Your task to perform on an android device: stop showing notifications on the lock screen Image 0: 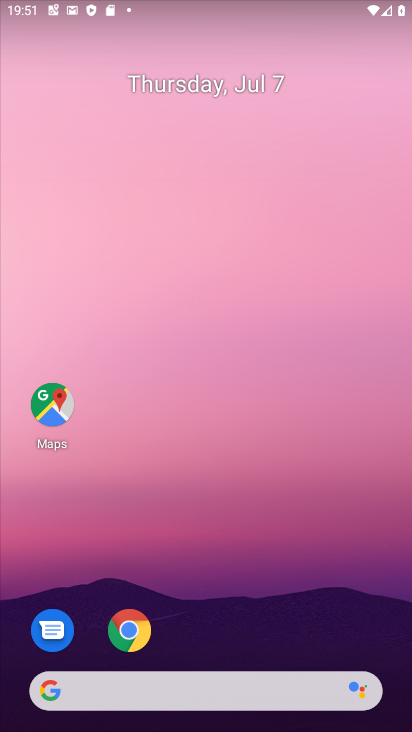
Step 0: drag from (340, 577) to (283, 141)
Your task to perform on an android device: stop showing notifications on the lock screen Image 1: 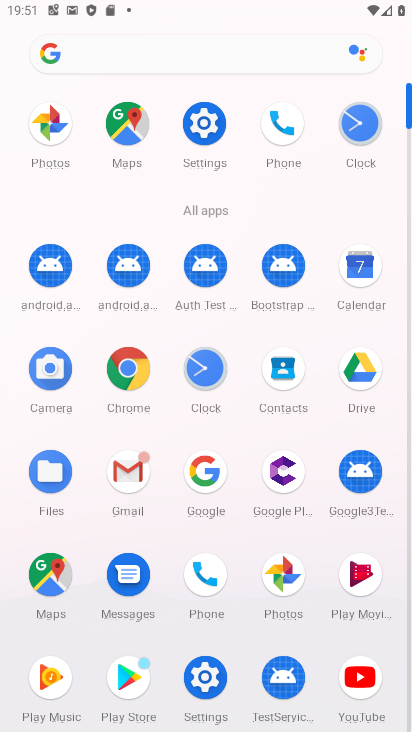
Step 1: click (218, 666)
Your task to perform on an android device: stop showing notifications on the lock screen Image 2: 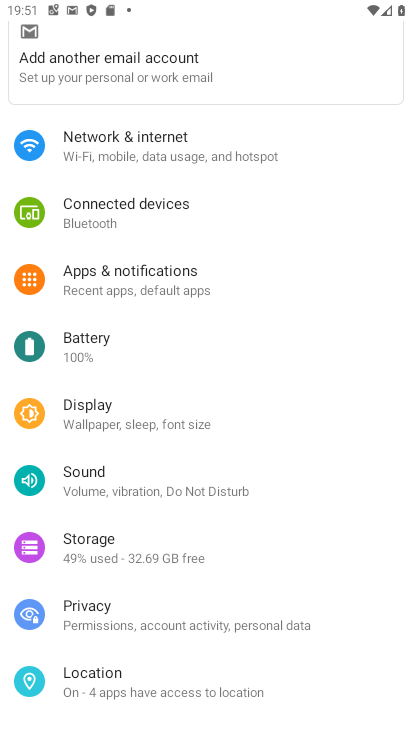
Step 2: click (143, 271)
Your task to perform on an android device: stop showing notifications on the lock screen Image 3: 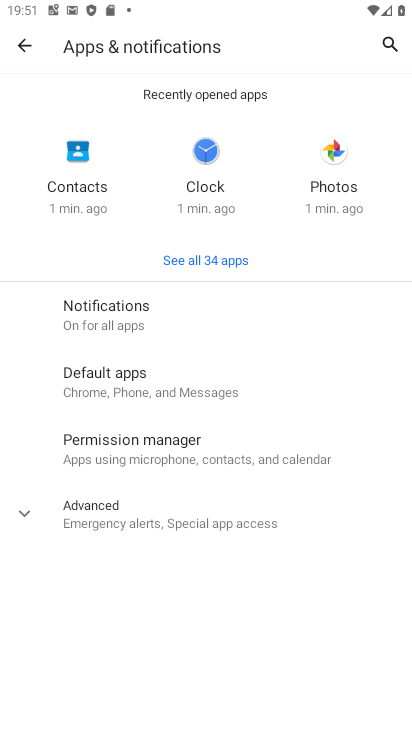
Step 3: click (129, 307)
Your task to perform on an android device: stop showing notifications on the lock screen Image 4: 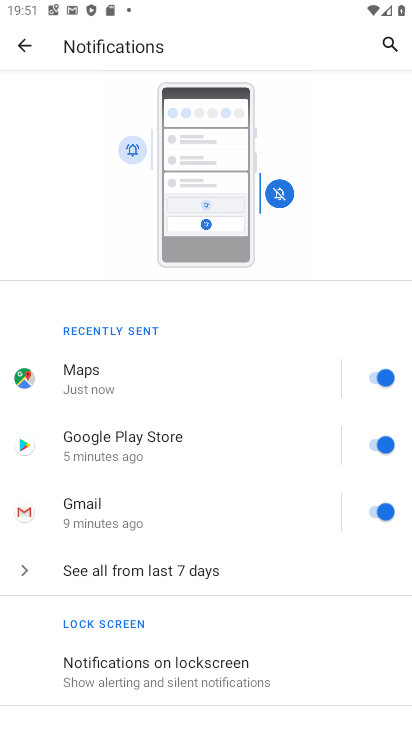
Step 4: click (147, 683)
Your task to perform on an android device: stop showing notifications on the lock screen Image 5: 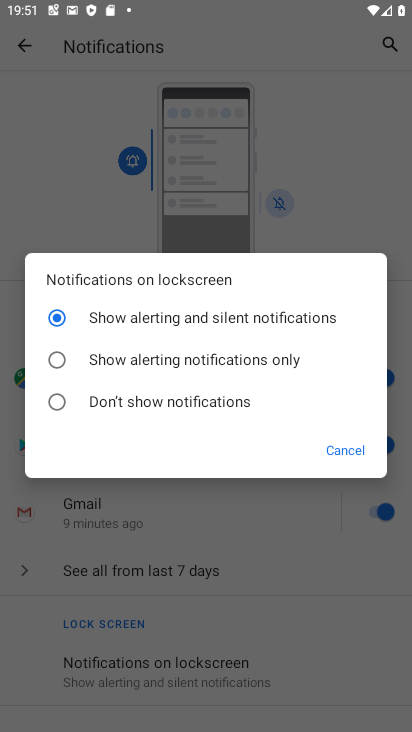
Step 5: click (166, 406)
Your task to perform on an android device: stop showing notifications on the lock screen Image 6: 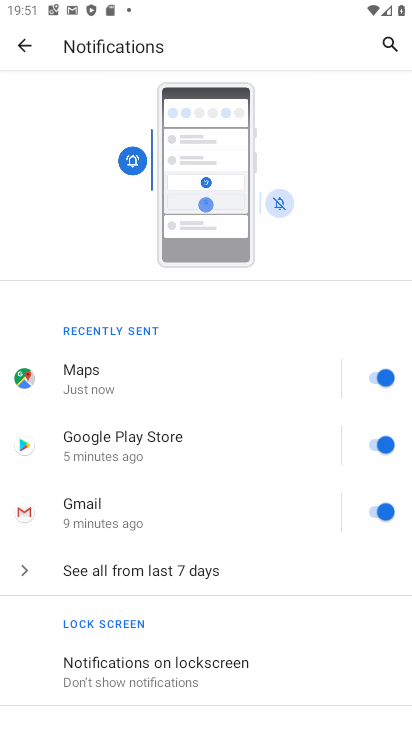
Step 6: task complete